Your task to perform on an android device: Open network settings Image 0: 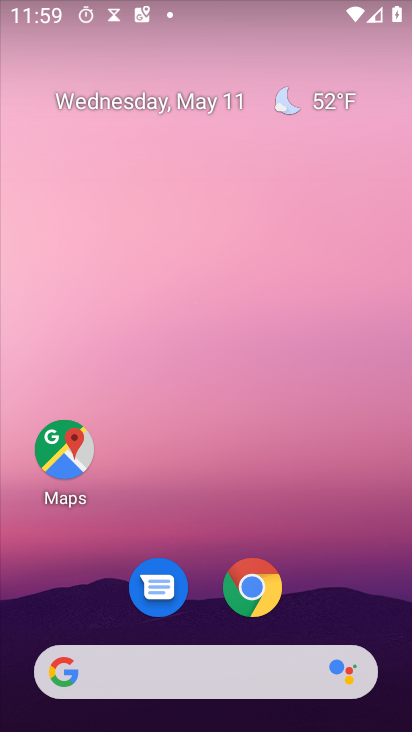
Step 0: drag from (204, 718) to (224, 177)
Your task to perform on an android device: Open network settings Image 1: 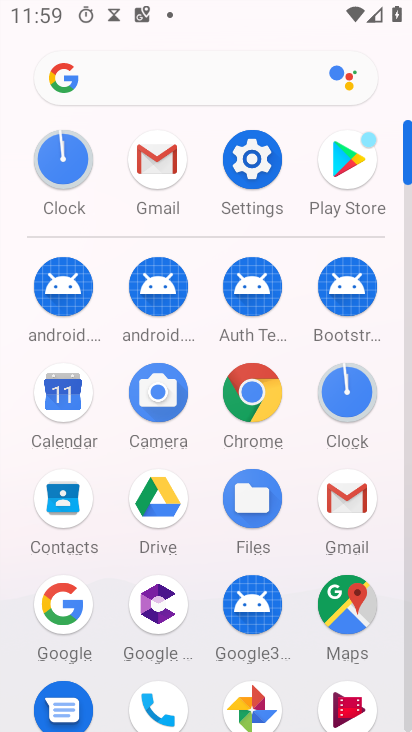
Step 1: click (231, 160)
Your task to perform on an android device: Open network settings Image 2: 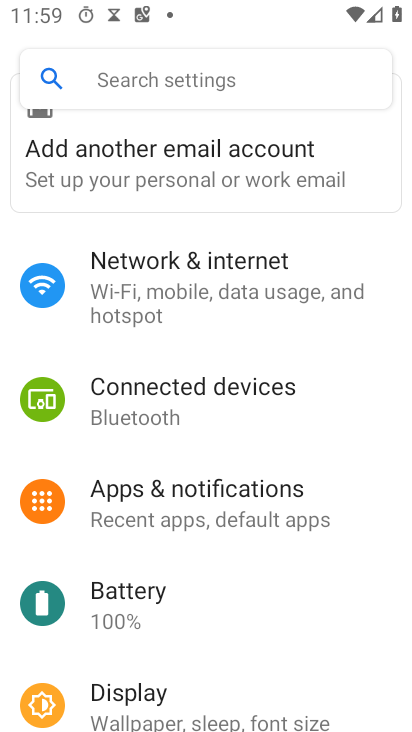
Step 2: click (174, 300)
Your task to perform on an android device: Open network settings Image 3: 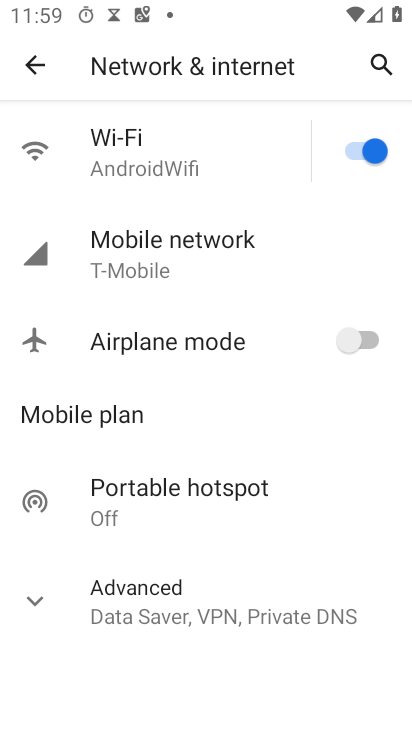
Step 3: task complete